Your task to perform on an android device: What's the weather going to be this weekend? Image 0: 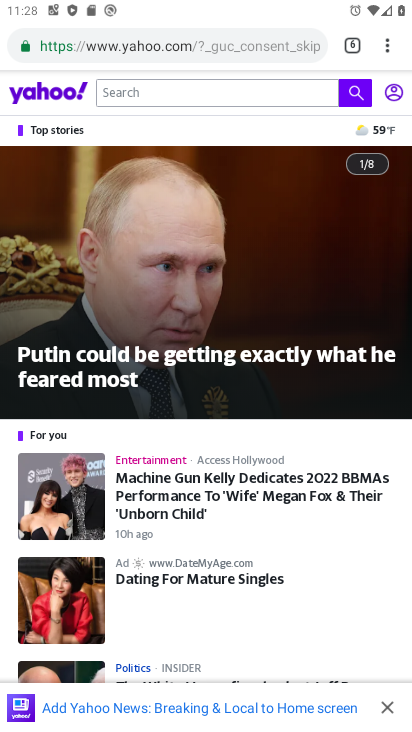
Step 0: press home button
Your task to perform on an android device: What's the weather going to be this weekend? Image 1: 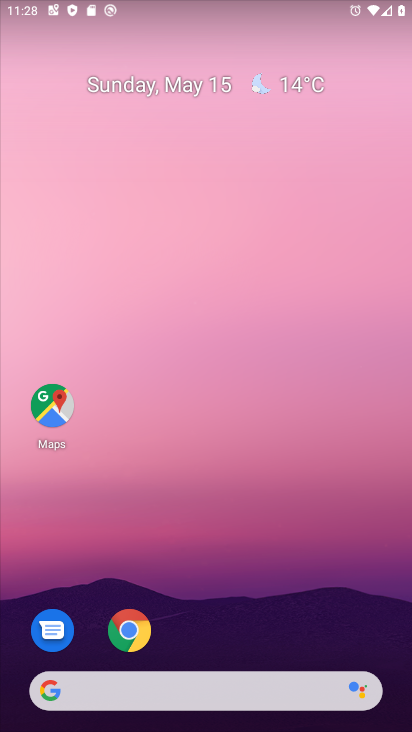
Step 1: click (255, 85)
Your task to perform on an android device: What's the weather going to be this weekend? Image 2: 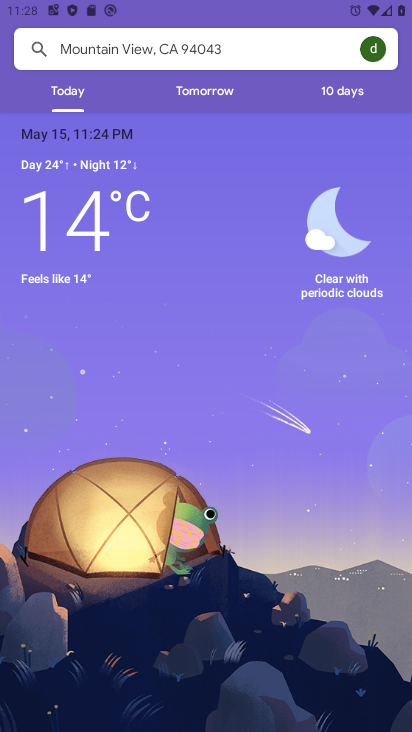
Step 2: click (340, 89)
Your task to perform on an android device: What's the weather going to be this weekend? Image 3: 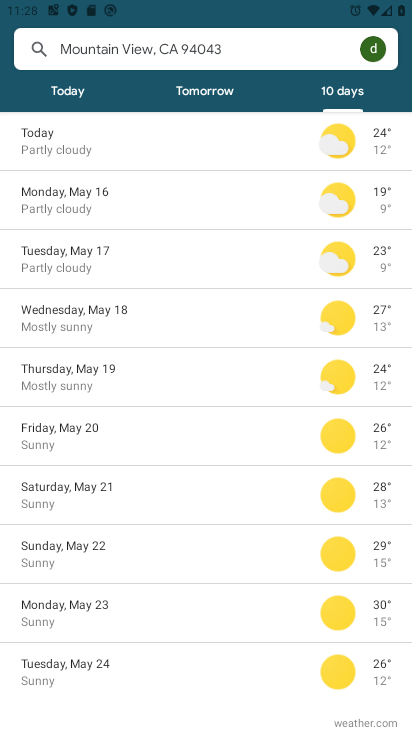
Step 3: click (83, 499)
Your task to perform on an android device: What's the weather going to be this weekend? Image 4: 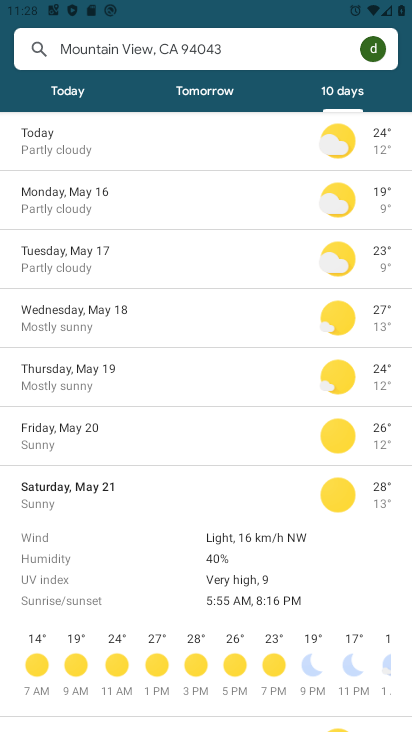
Step 4: task complete